Your task to perform on an android device: refresh tabs in the chrome app Image 0: 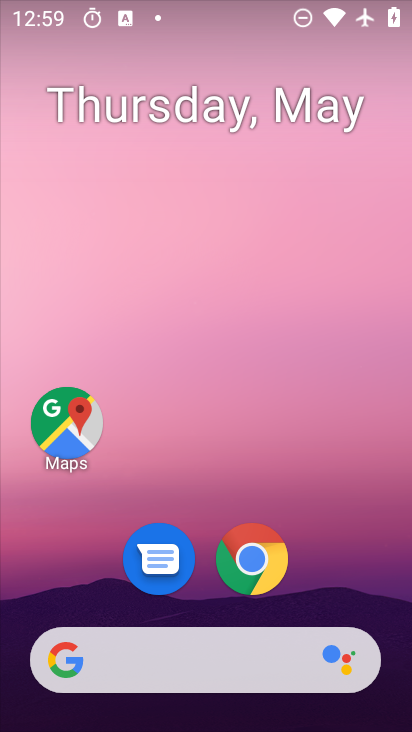
Step 0: drag from (237, 527) to (253, 191)
Your task to perform on an android device: refresh tabs in the chrome app Image 1: 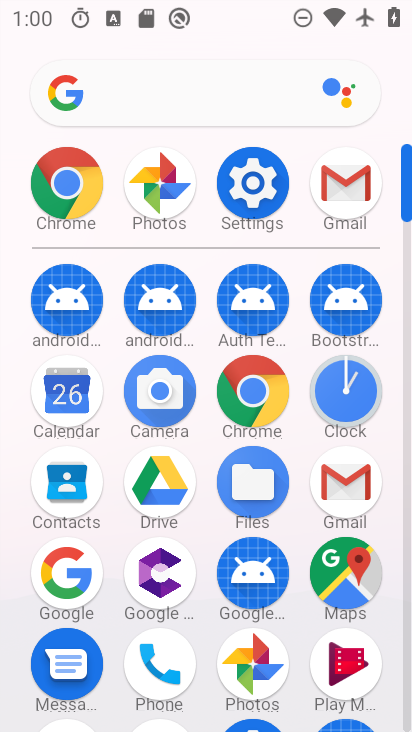
Step 1: click (278, 392)
Your task to perform on an android device: refresh tabs in the chrome app Image 2: 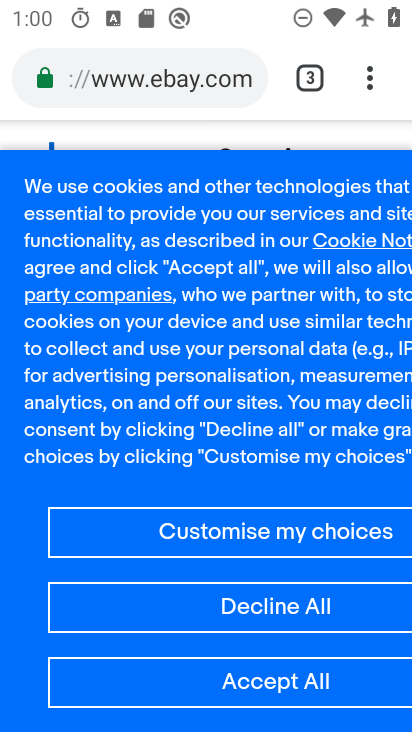
Step 2: click (366, 93)
Your task to perform on an android device: refresh tabs in the chrome app Image 3: 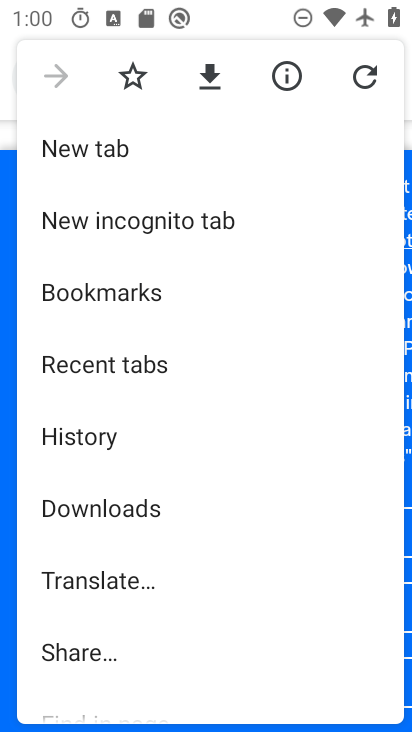
Step 3: click (368, 73)
Your task to perform on an android device: refresh tabs in the chrome app Image 4: 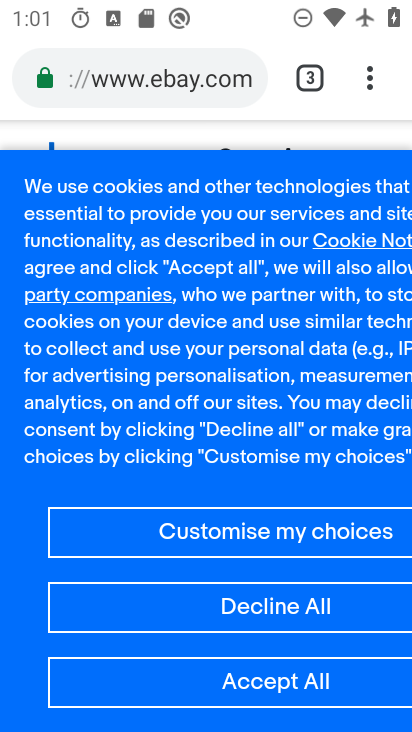
Step 4: task complete